Your task to perform on an android device: turn on wifi Image 0: 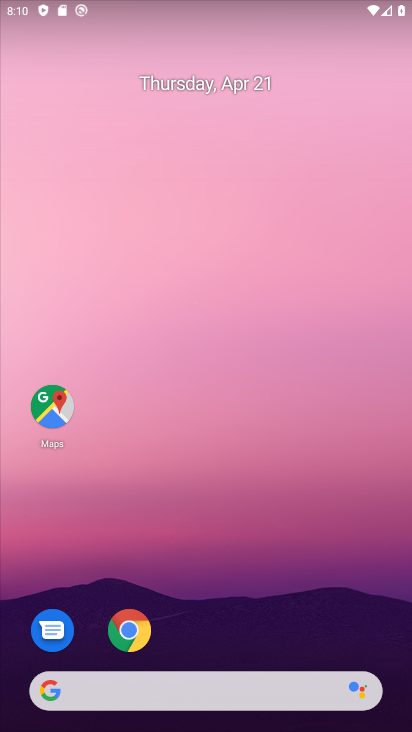
Step 0: drag from (212, 510) to (350, 5)
Your task to perform on an android device: turn on wifi Image 1: 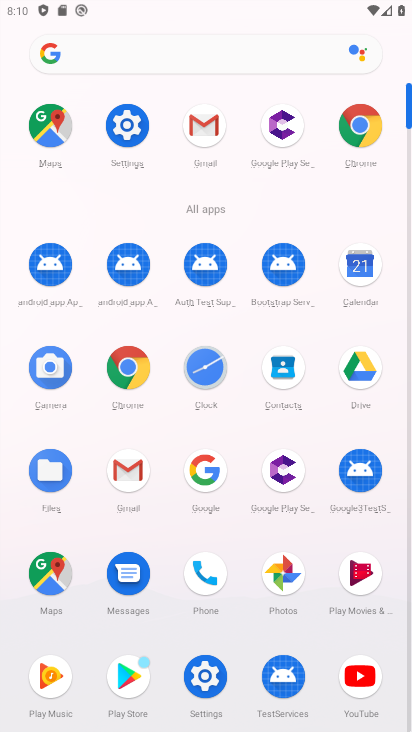
Step 1: click (129, 141)
Your task to perform on an android device: turn on wifi Image 2: 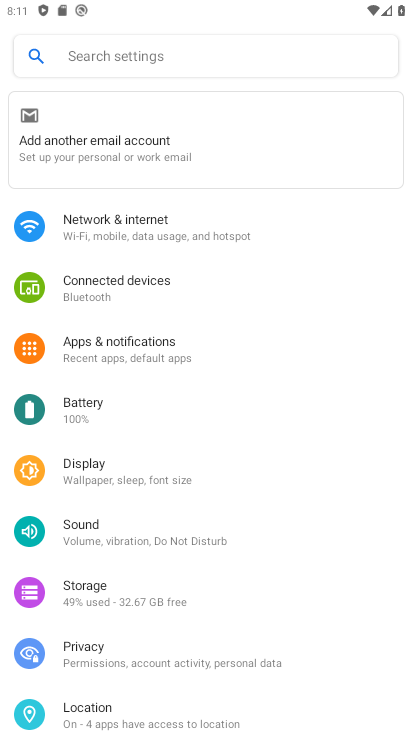
Step 2: click (168, 233)
Your task to perform on an android device: turn on wifi Image 3: 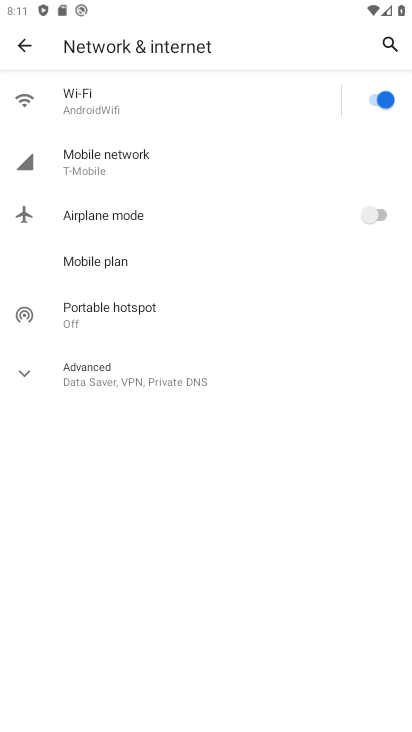
Step 3: task complete